Your task to perform on an android device: Is it going to rain this weekend? Image 0: 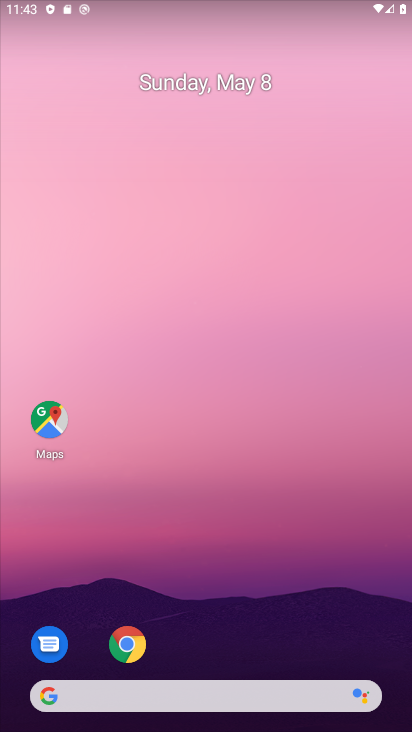
Step 0: drag from (145, 370) to (397, 353)
Your task to perform on an android device: Is it going to rain this weekend? Image 1: 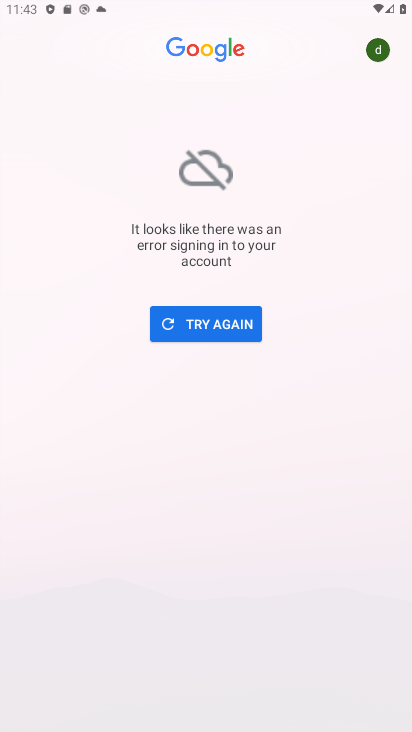
Step 1: click (232, 320)
Your task to perform on an android device: Is it going to rain this weekend? Image 2: 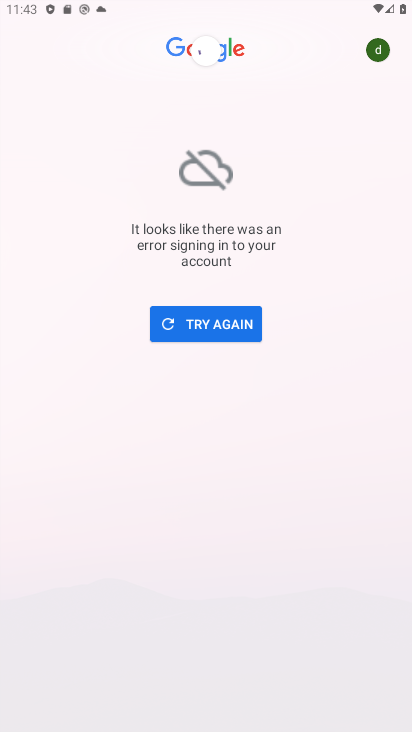
Step 2: click (232, 320)
Your task to perform on an android device: Is it going to rain this weekend? Image 3: 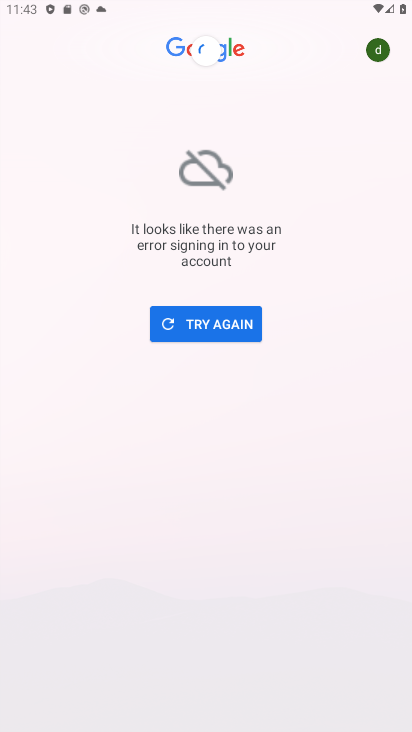
Step 3: click (232, 320)
Your task to perform on an android device: Is it going to rain this weekend? Image 4: 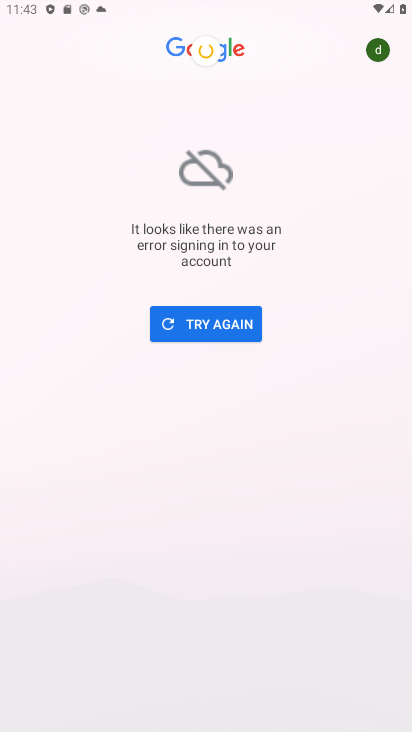
Step 4: click (232, 320)
Your task to perform on an android device: Is it going to rain this weekend? Image 5: 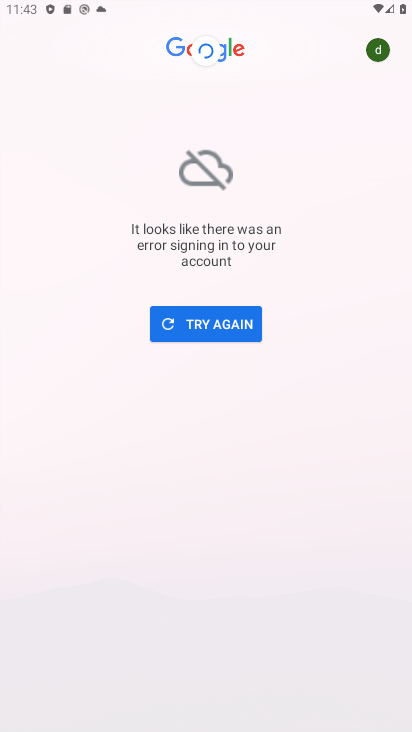
Step 5: click (225, 328)
Your task to perform on an android device: Is it going to rain this weekend? Image 6: 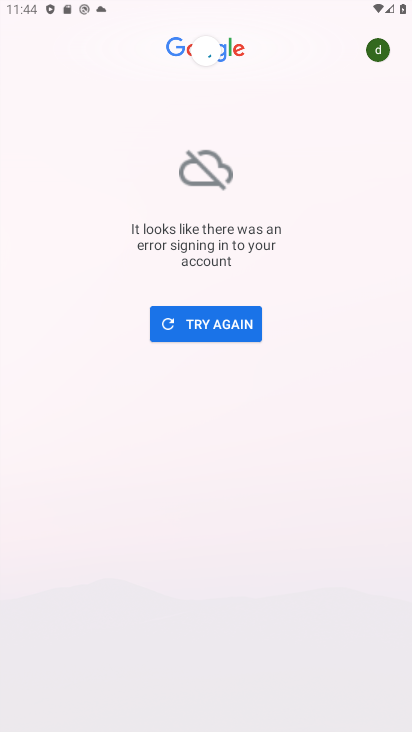
Step 6: task complete